Your task to perform on an android device: Go to Yahoo.com Image 0: 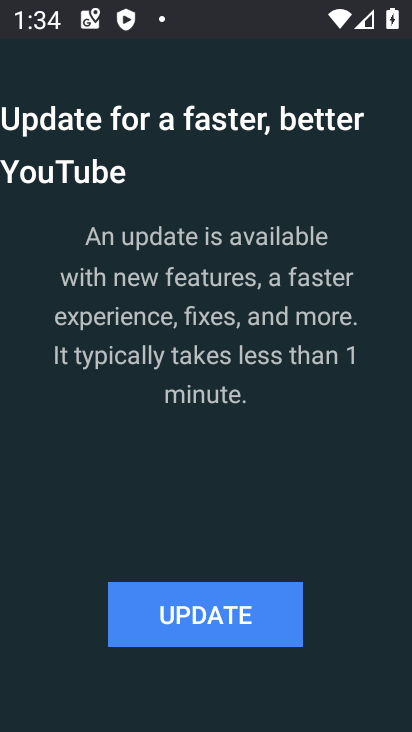
Step 0: press home button
Your task to perform on an android device: Go to Yahoo.com Image 1: 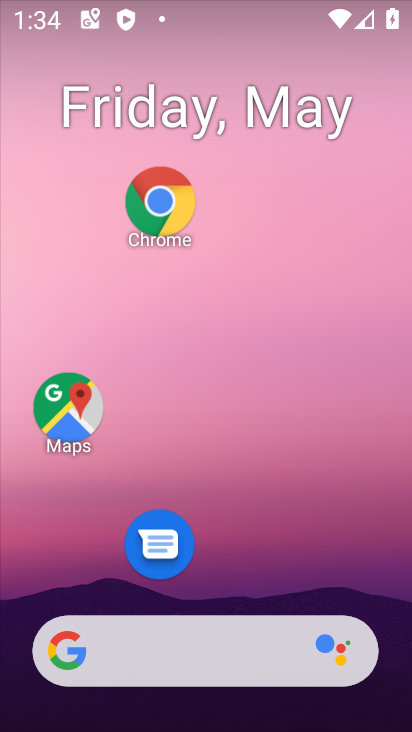
Step 1: drag from (266, 606) to (221, 81)
Your task to perform on an android device: Go to Yahoo.com Image 2: 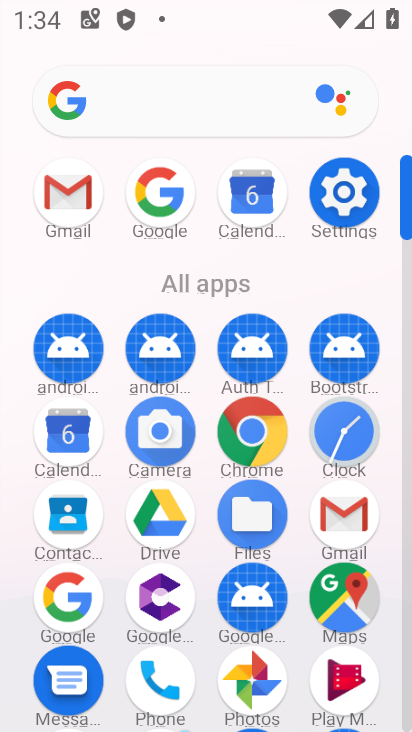
Step 2: click (245, 433)
Your task to perform on an android device: Go to Yahoo.com Image 3: 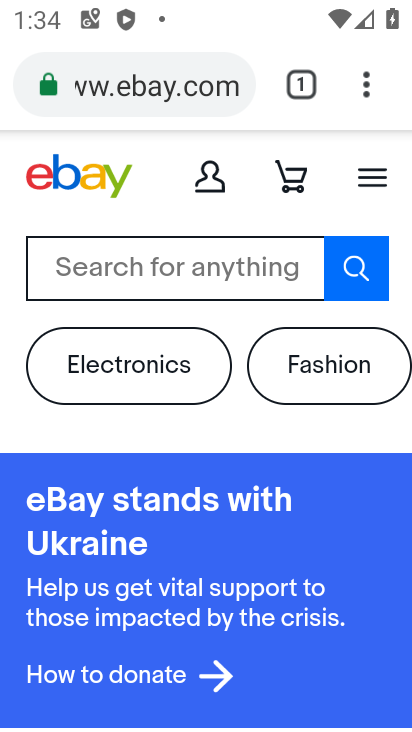
Step 3: click (314, 90)
Your task to perform on an android device: Go to Yahoo.com Image 4: 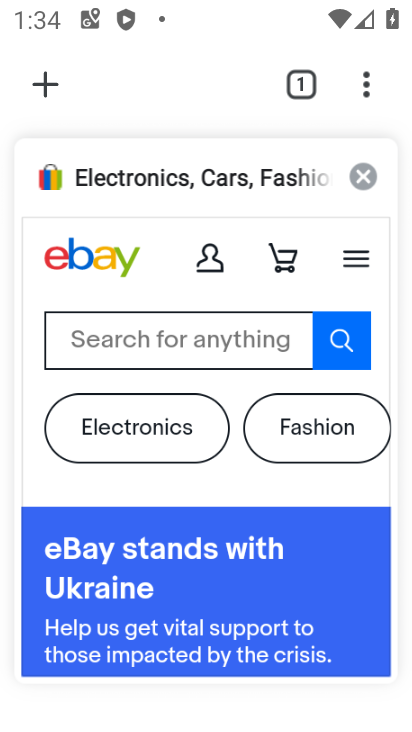
Step 4: click (60, 89)
Your task to perform on an android device: Go to Yahoo.com Image 5: 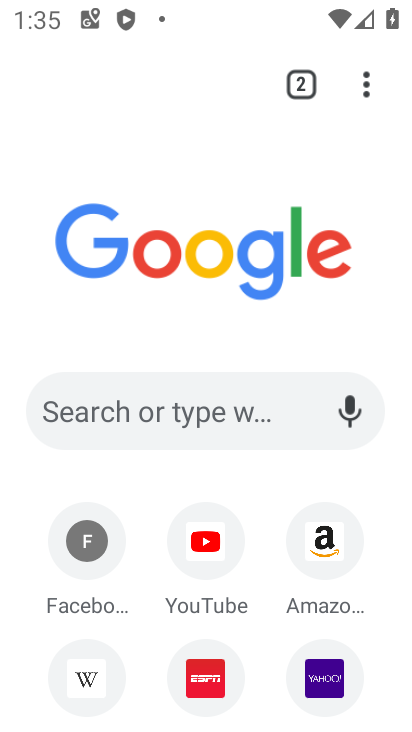
Step 5: click (345, 698)
Your task to perform on an android device: Go to Yahoo.com Image 6: 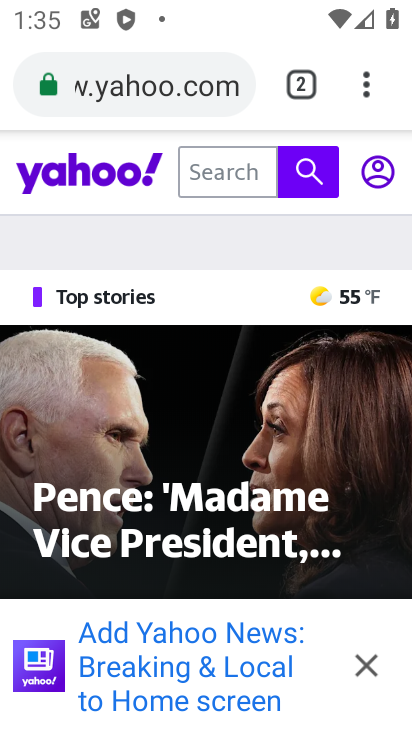
Step 6: task complete